Your task to perform on an android device: turn off picture-in-picture Image 0: 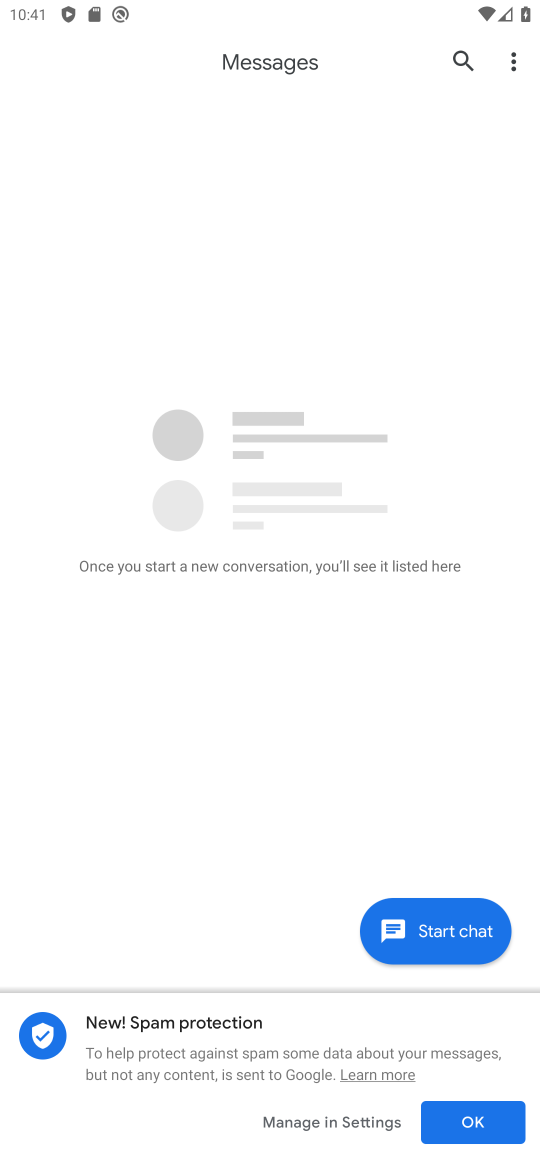
Step 0: task complete